Your task to perform on an android device: What's on my calendar today? Image 0: 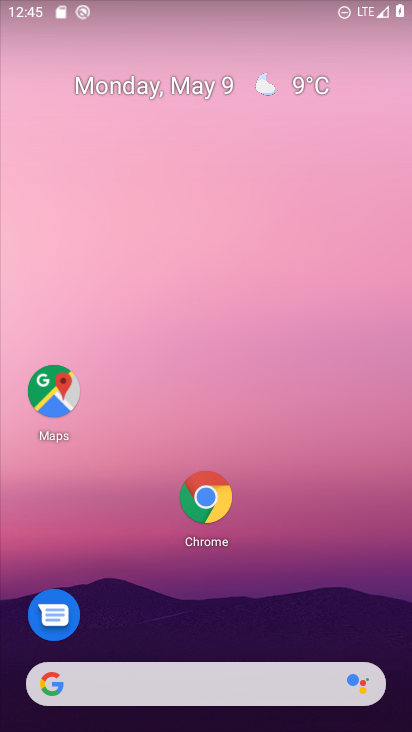
Step 0: drag from (339, 582) to (303, 134)
Your task to perform on an android device: What's on my calendar today? Image 1: 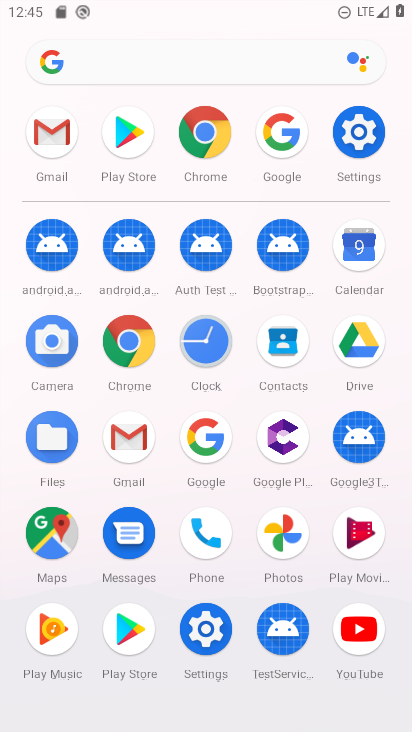
Step 1: click (364, 248)
Your task to perform on an android device: What's on my calendar today? Image 2: 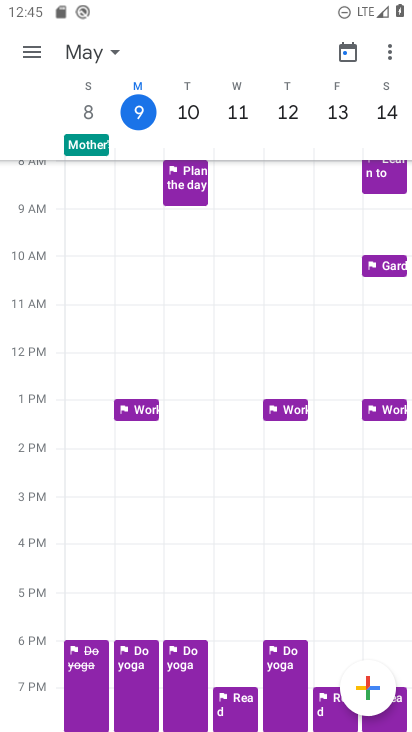
Step 2: click (30, 52)
Your task to perform on an android device: What's on my calendar today? Image 3: 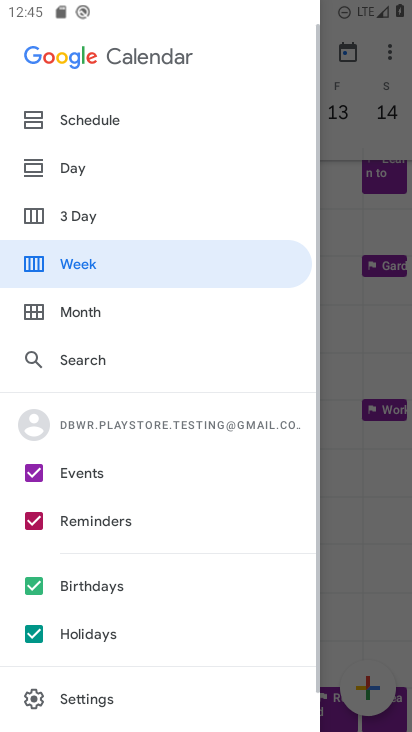
Step 3: click (114, 185)
Your task to perform on an android device: What's on my calendar today? Image 4: 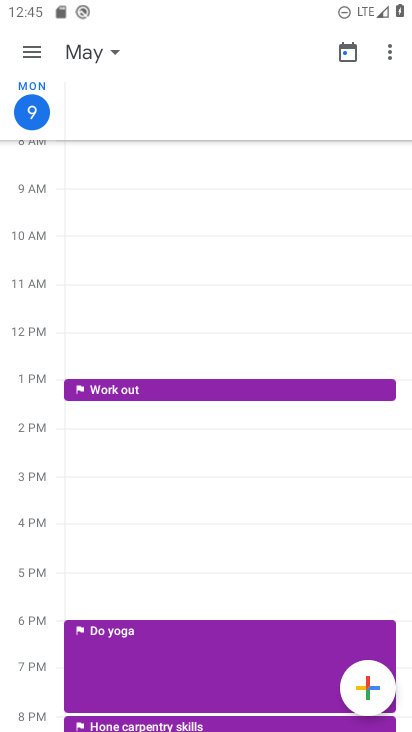
Step 4: task complete